Your task to perform on an android device: Search for sushi restaurants on Maps Image 0: 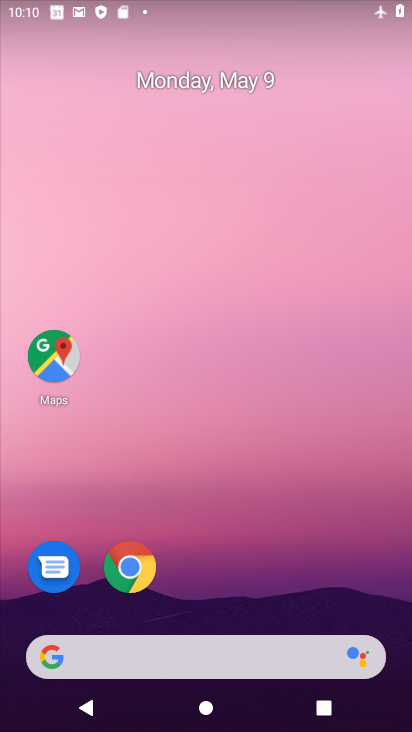
Step 0: click (56, 370)
Your task to perform on an android device: Search for sushi restaurants on Maps Image 1: 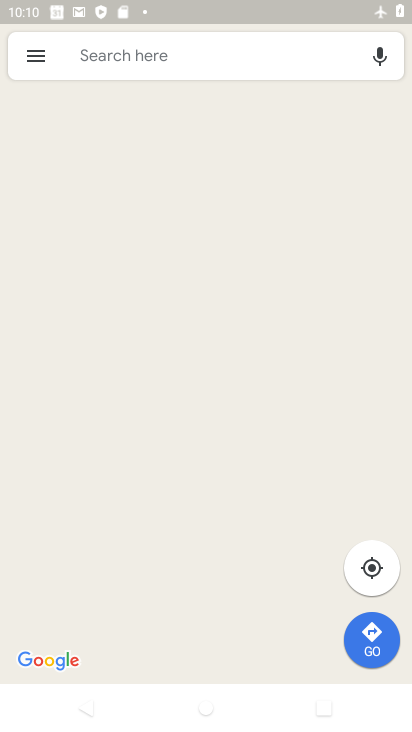
Step 1: click (205, 64)
Your task to perform on an android device: Search for sushi restaurants on Maps Image 2: 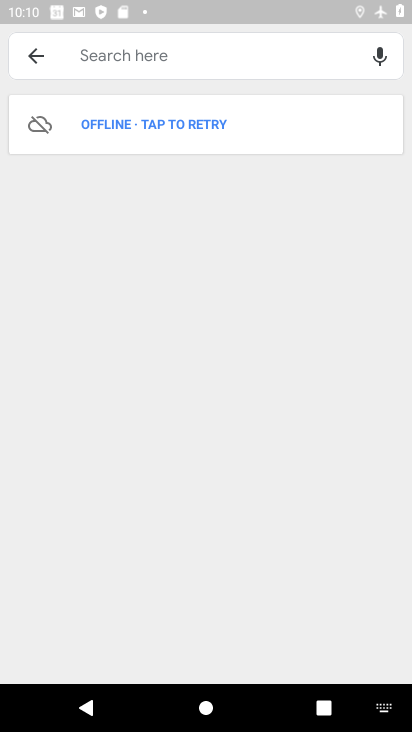
Step 2: type "sushi restaurants"
Your task to perform on an android device: Search for sushi restaurants on Maps Image 3: 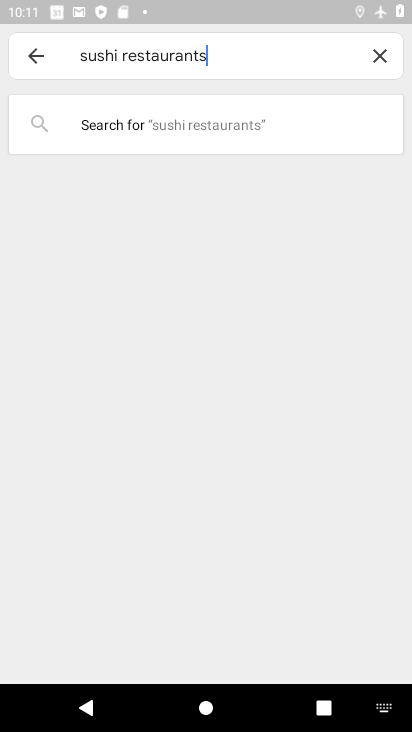
Step 3: task complete